Your task to perform on an android device: Open sound settings Image 0: 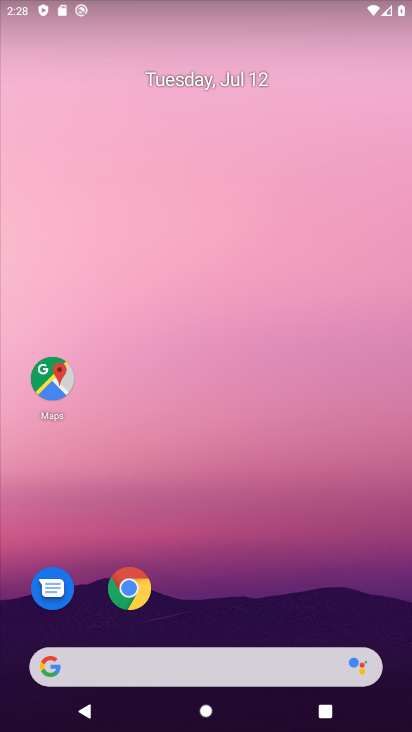
Step 0: drag from (210, 552) to (168, 327)
Your task to perform on an android device: Open sound settings Image 1: 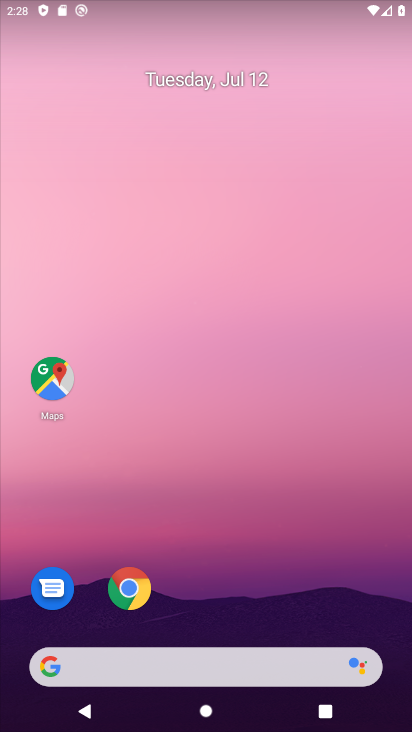
Step 1: drag from (269, 678) to (193, 101)
Your task to perform on an android device: Open sound settings Image 2: 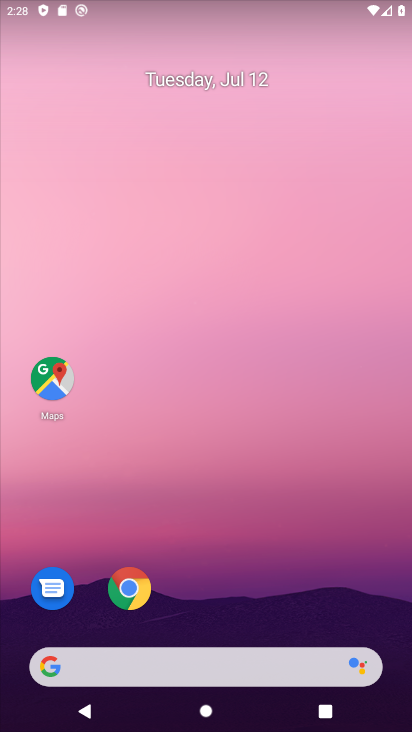
Step 2: drag from (265, 539) to (252, 196)
Your task to perform on an android device: Open sound settings Image 3: 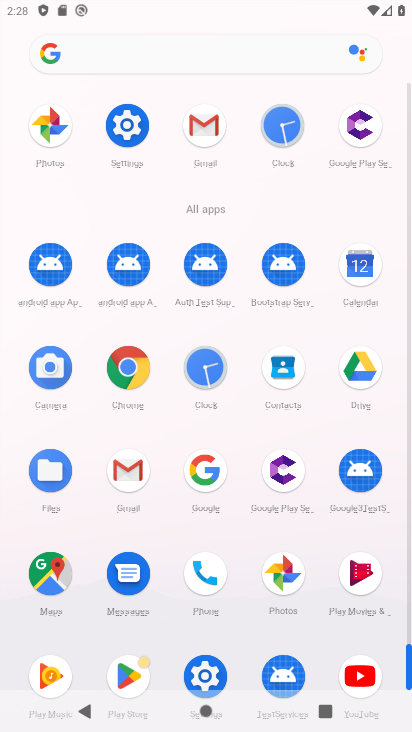
Step 3: drag from (263, 610) to (162, 0)
Your task to perform on an android device: Open sound settings Image 4: 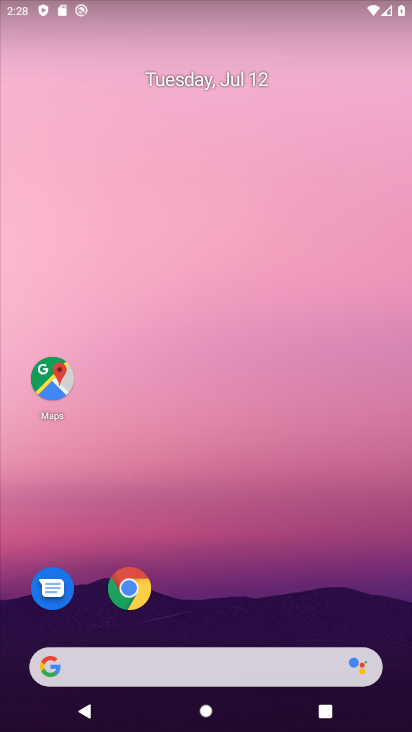
Step 4: drag from (269, 623) to (141, 40)
Your task to perform on an android device: Open sound settings Image 5: 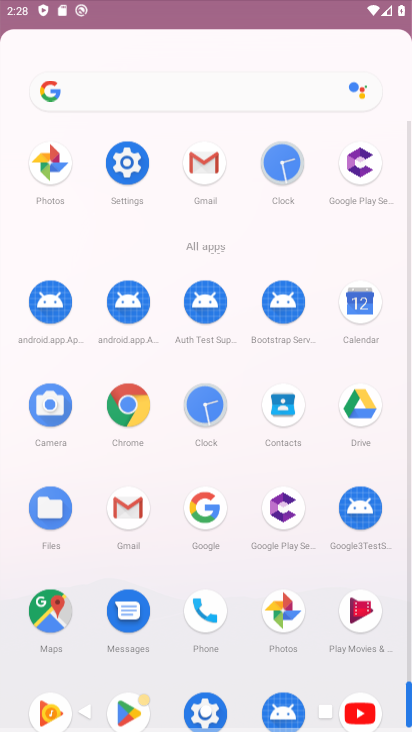
Step 5: drag from (253, 521) to (179, 91)
Your task to perform on an android device: Open sound settings Image 6: 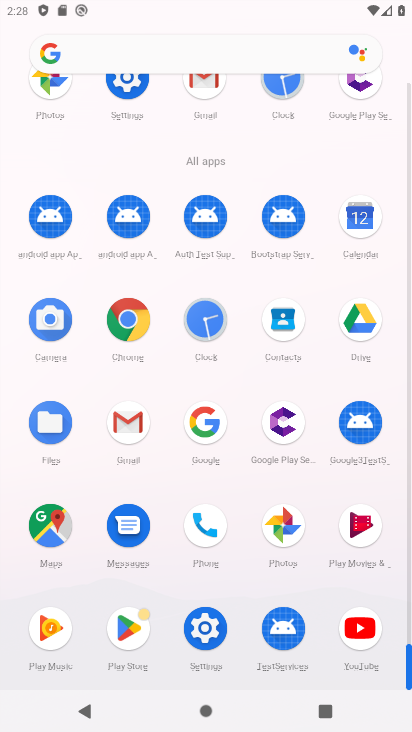
Step 6: click (209, 629)
Your task to perform on an android device: Open sound settings Image 7: 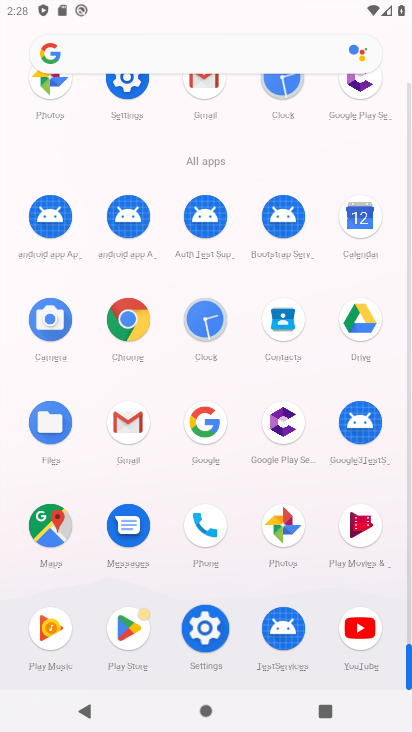
Step 7: click (209, 626)
Your task to perform on an android device: Open sound settings Image 8: 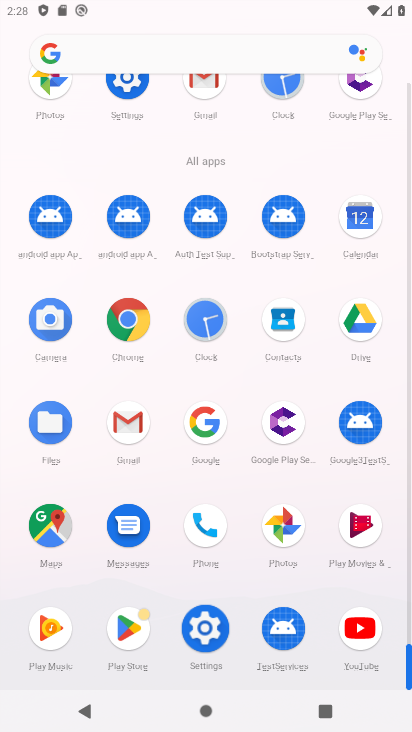
Step 8: click (207, 627)
Your task to perform on an android device: Open sound settings Image 9: 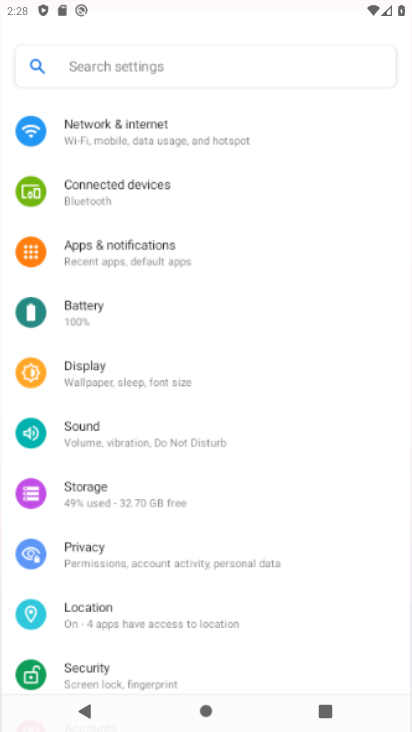
Step 9: click (207, 627)
Your task to perform on an android device: Open sound settings Image 10: 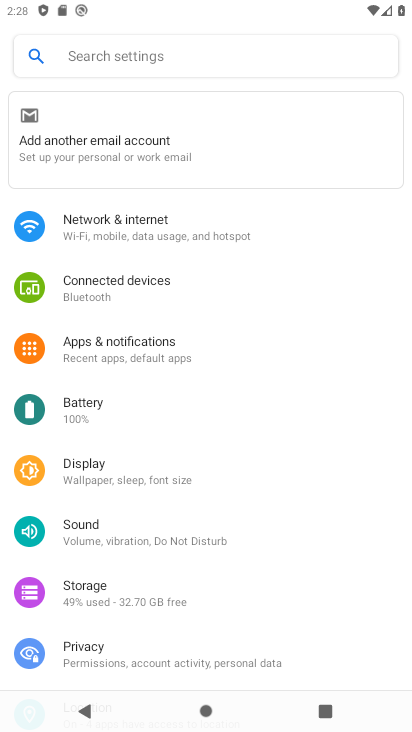
Step 10: click (207, 628)
Your task to perform on an android device: Open sound settings Image 11: 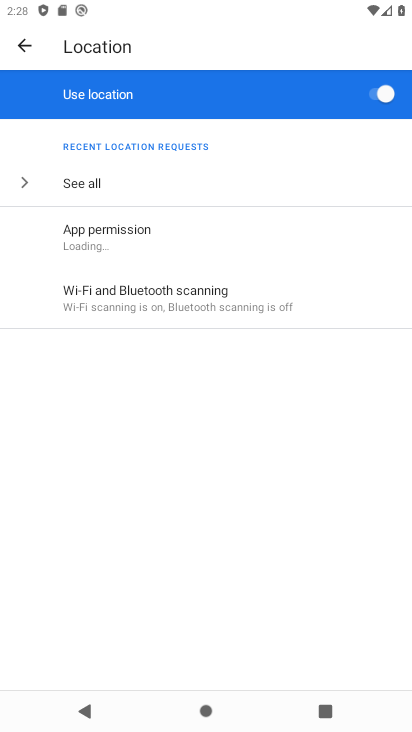
Step 11: click (92, 426)
Your task to perform on an android device: Open sound settings Image 12: 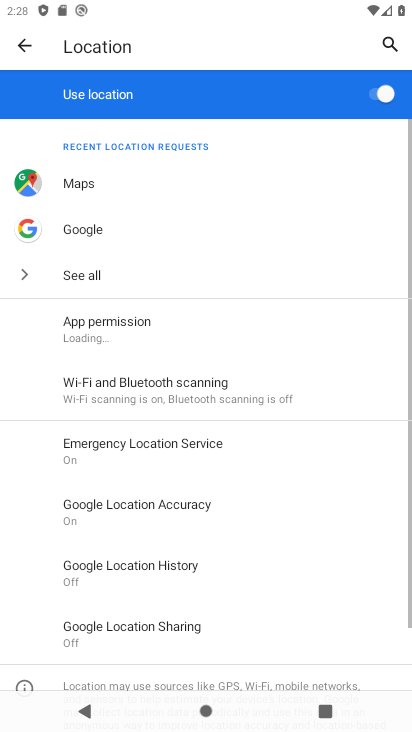
Step 12: click (24, 38)
Your task to perform on an android device: Open sound settings Image 13: 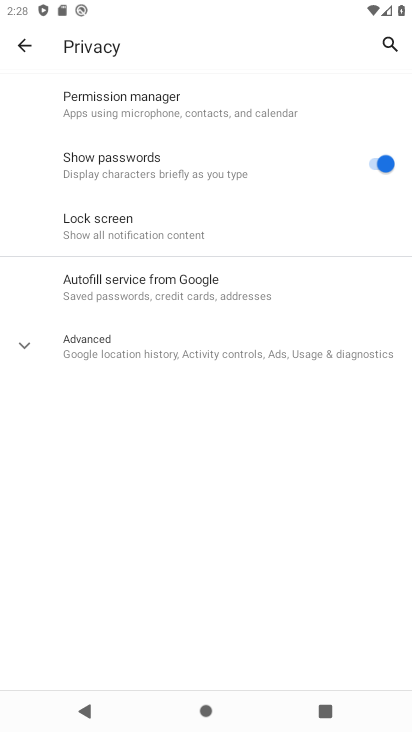
Step 13: click (30, 40)
Your task to perform on an android device: Open sound settings Image 14: 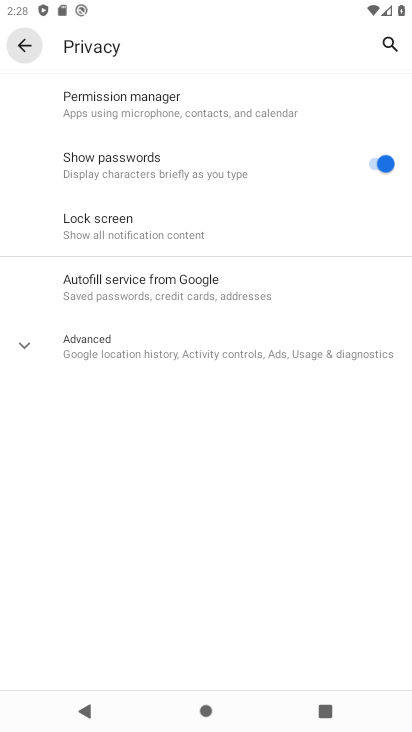
Step 14: click (30, 40)
Your task to perform on an android device: Open sound settings Image 15: 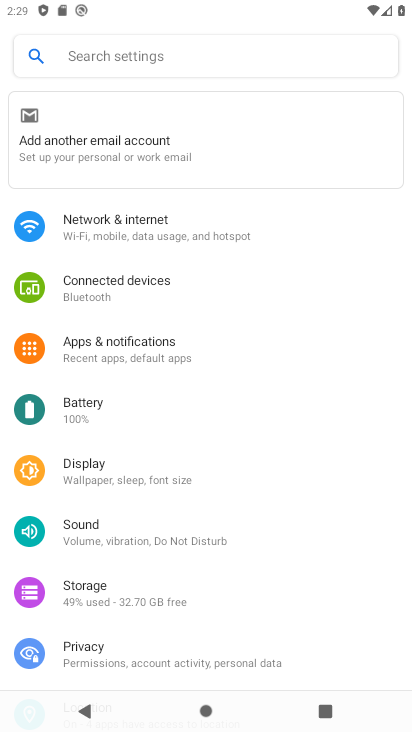
Step 15: click (94, 523)
Your task to perform on an android device: Open sound settings Image 16: 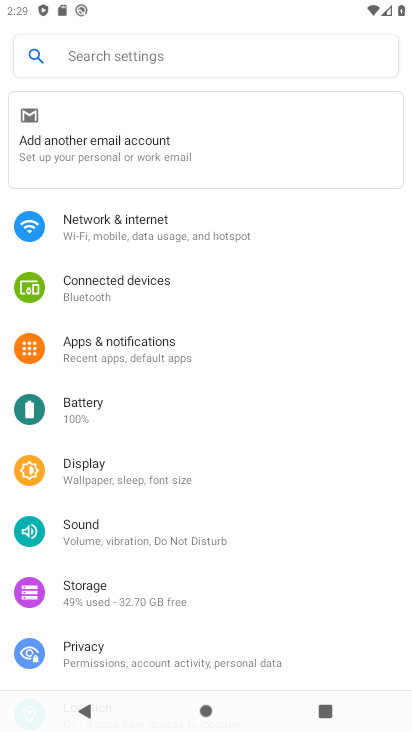
Step 16: click (94, 523)
Your task to perform on an android device: Open sound settings Image 17: 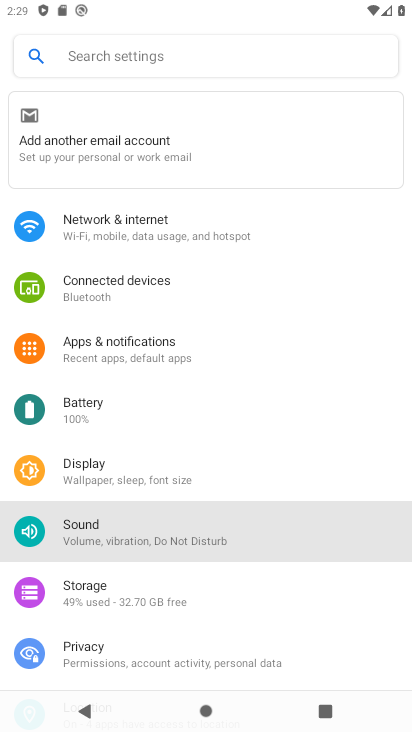
Step 17: click (98, 527)
Your task to perform on an android device: Open sound settings Image 18: 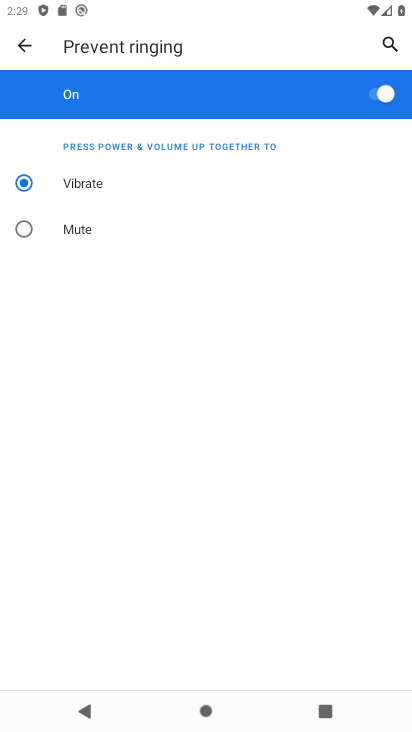
Step 18: task complete